Your task to perform on an android device: open chrome and create a bookmark for the current page Image 0: 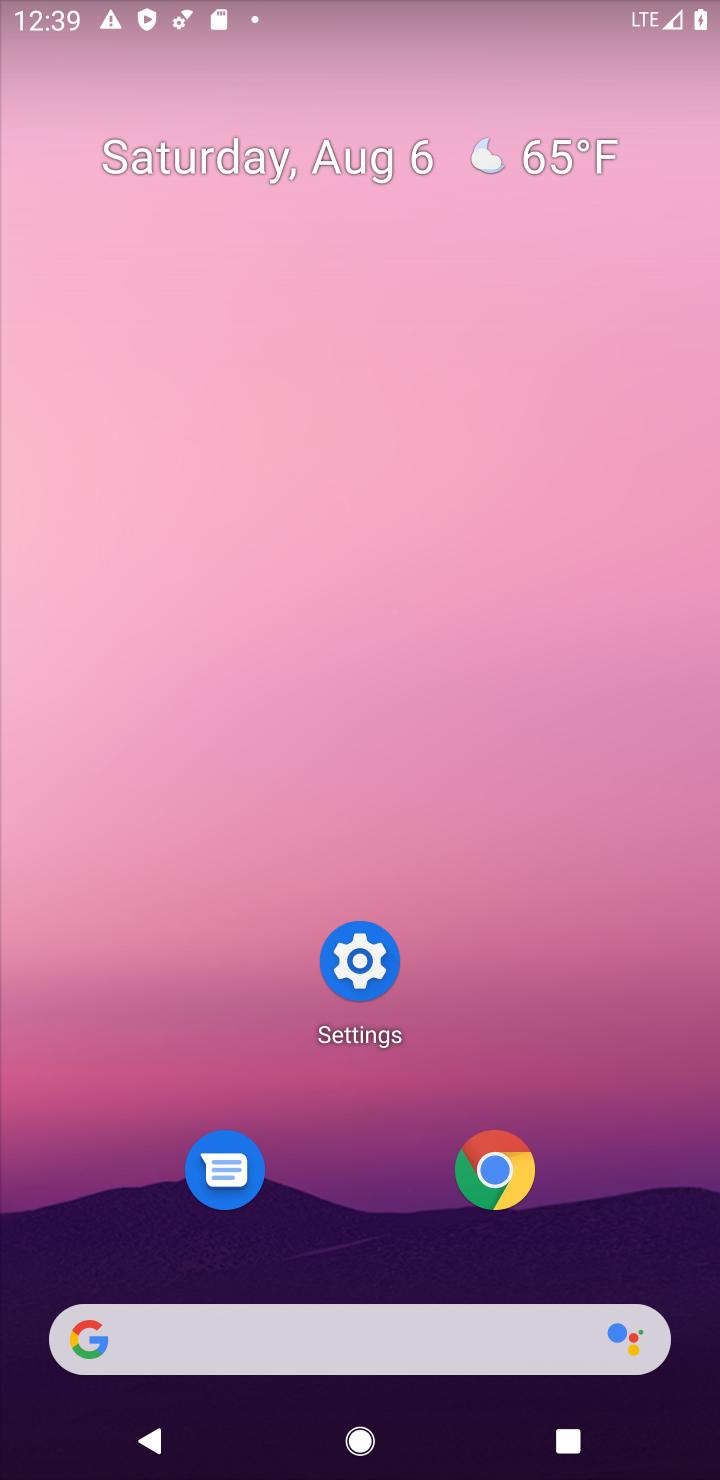
Step 0: click (498, 1195)
Your task to perform on an android device: open chrome and create a bookmark for the current page Image 1: 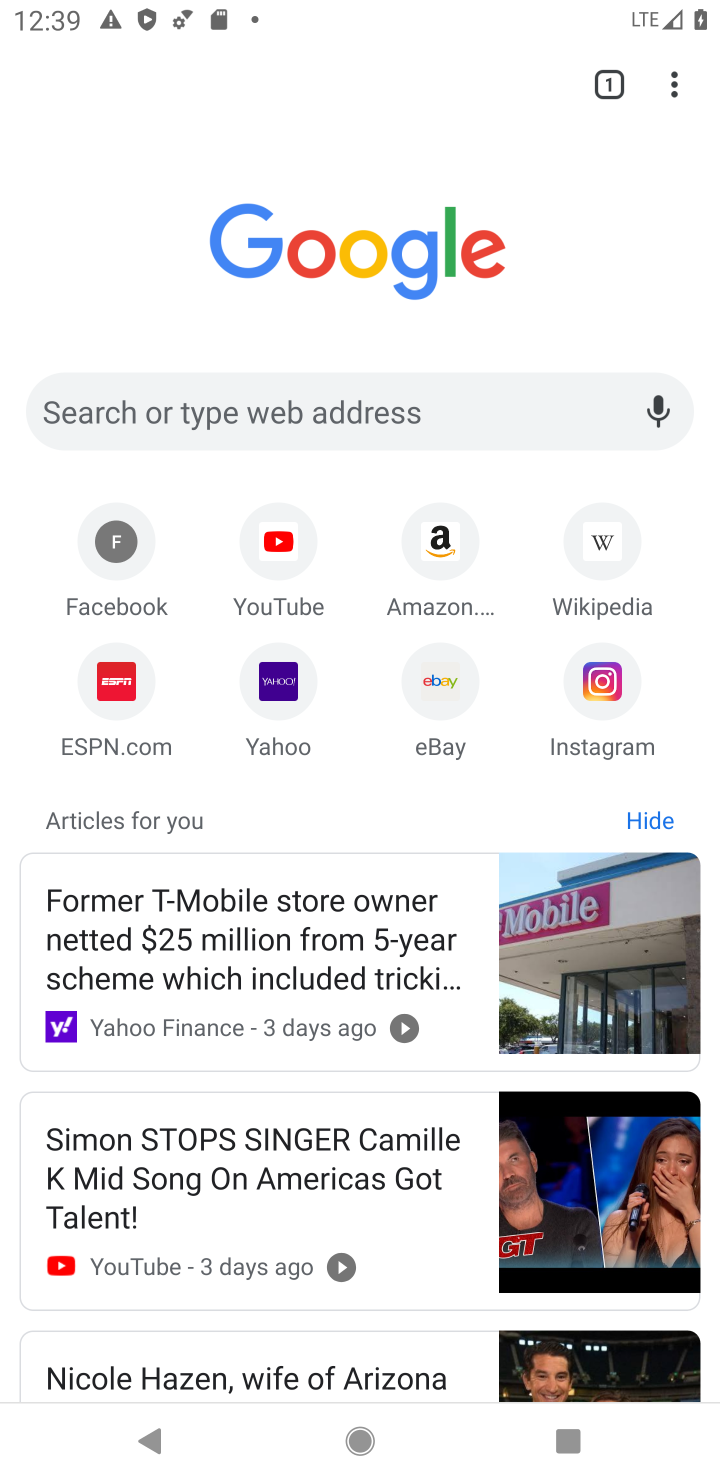
Step 1: click (675, 78)
Your task to perform on an android device: open chrome and create a bookmark for the current page Image 2: 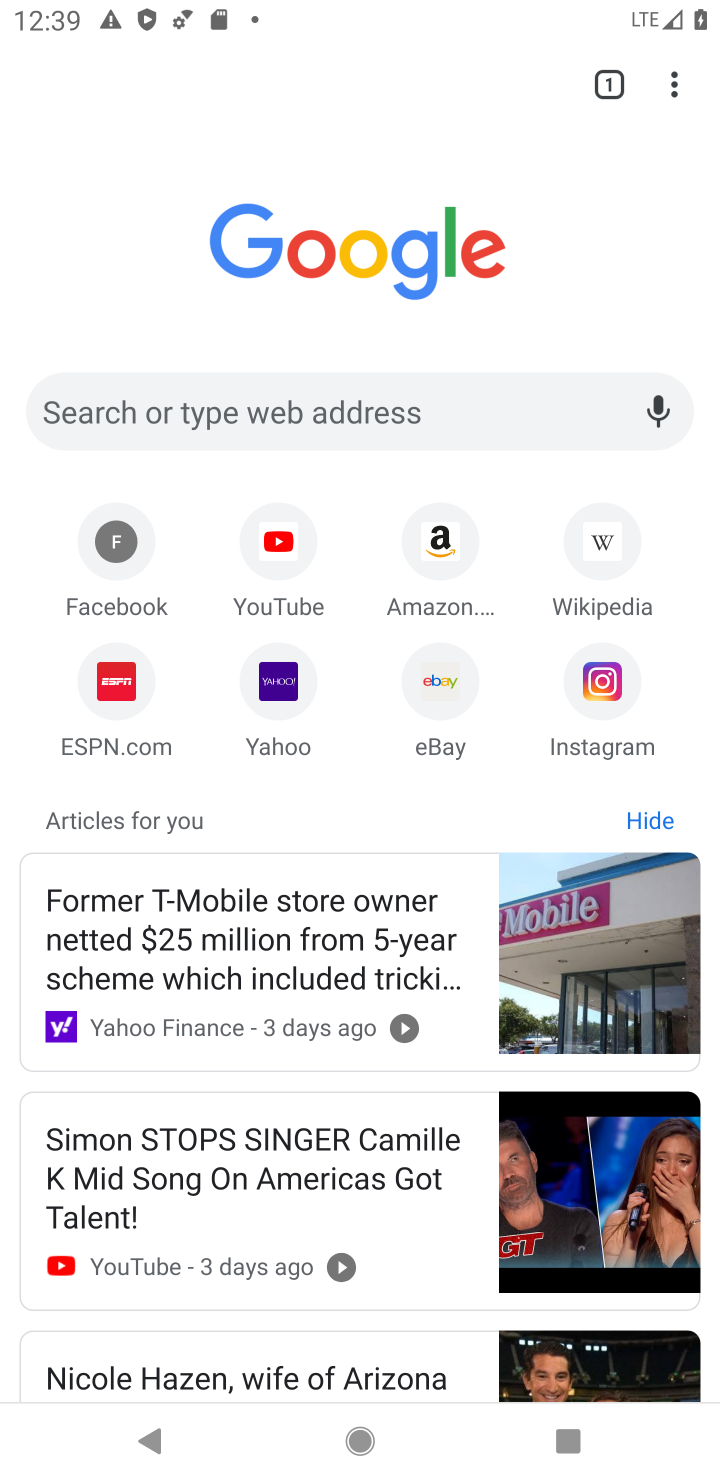
Step 2: click (186, 900)
Your task to perform on an android device: open chrome and create a bookmark for the current page Image 3: 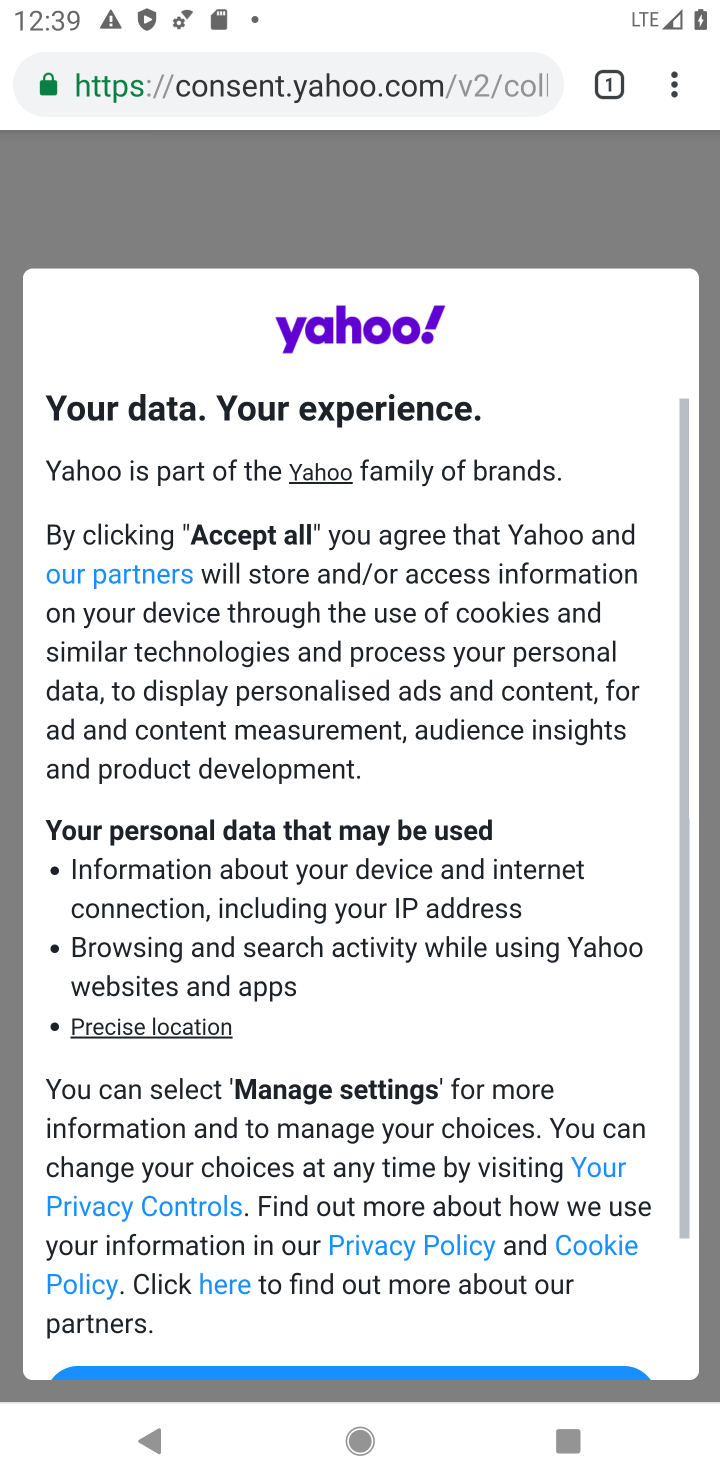
Step 3: click (681, 83)
Your task to perform on an android device: open chrome and create a bookmark for the current page Image 4: 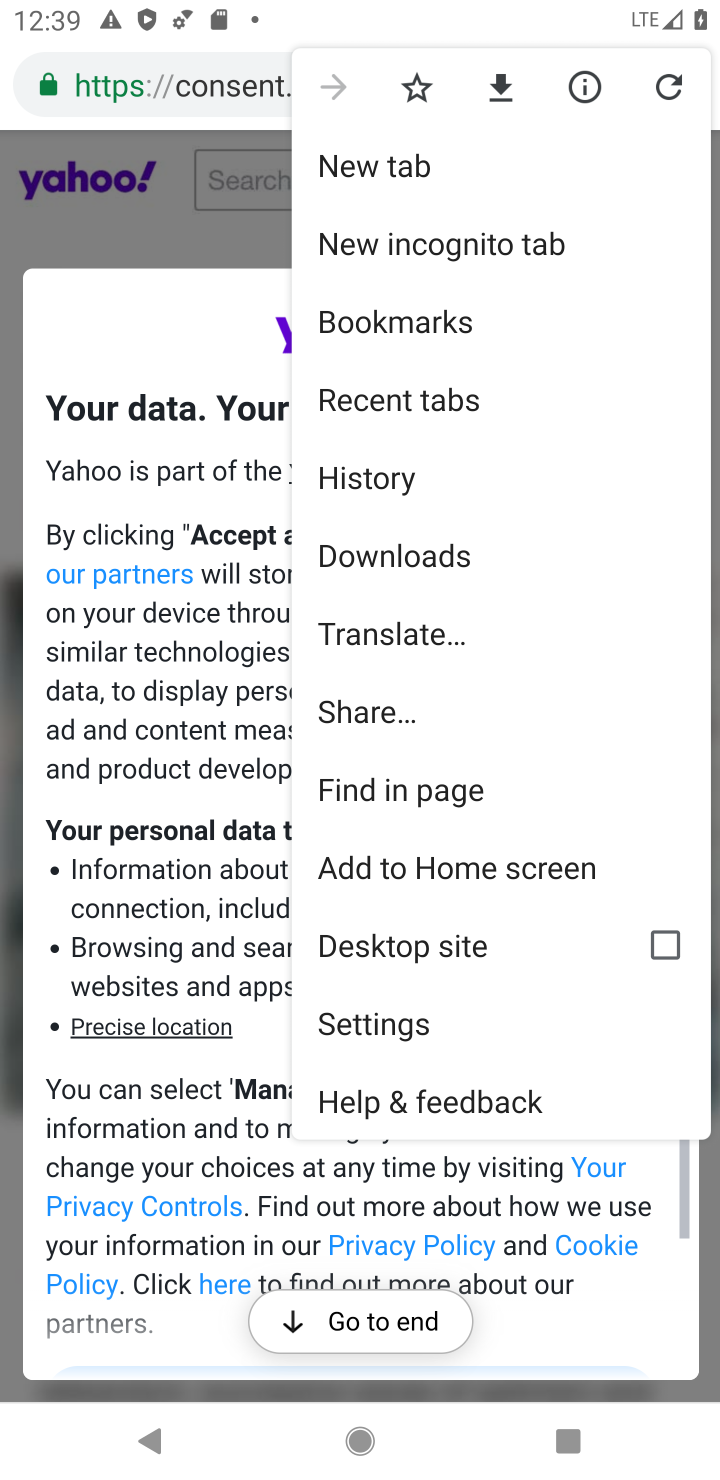
Step 4: click (416, 83)
Your task to perform on an android device: open chrome and create a bookmark for the current page Image 5: 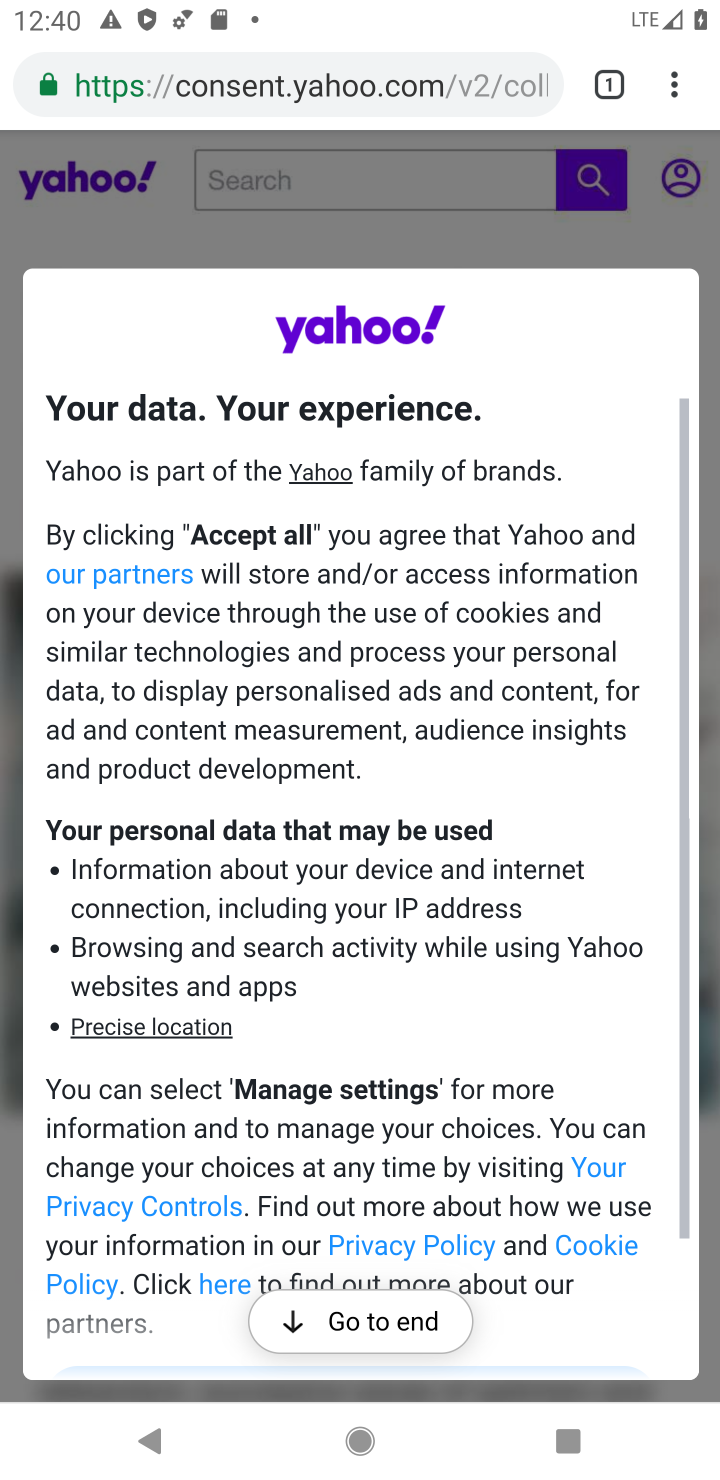
Step 5: click (676, 84)
Your task to perform on an android device: open chrome and create a bookmark for the current page Image 6: 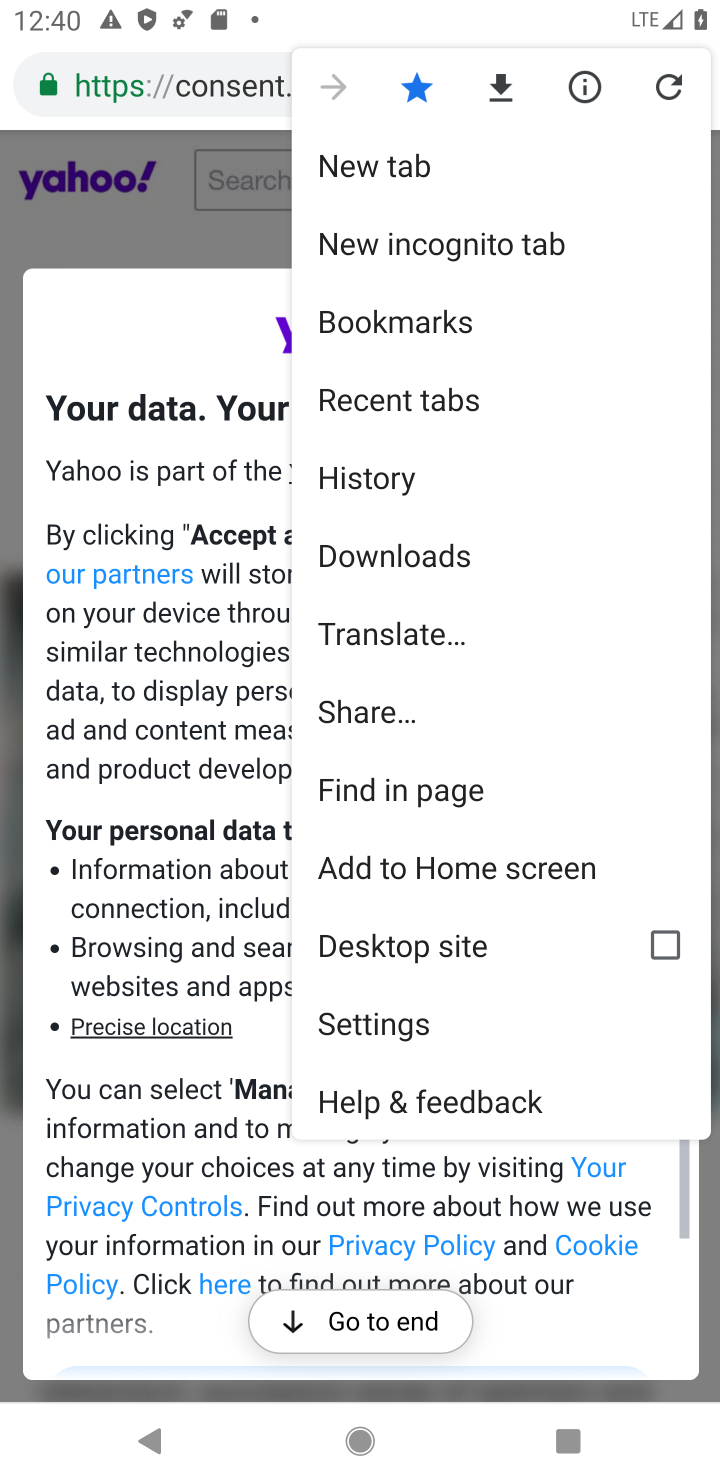
Step 6: click (401, 325)
Your task to perform on an android device: open chrome and create a bookmark for the current page Image 7: 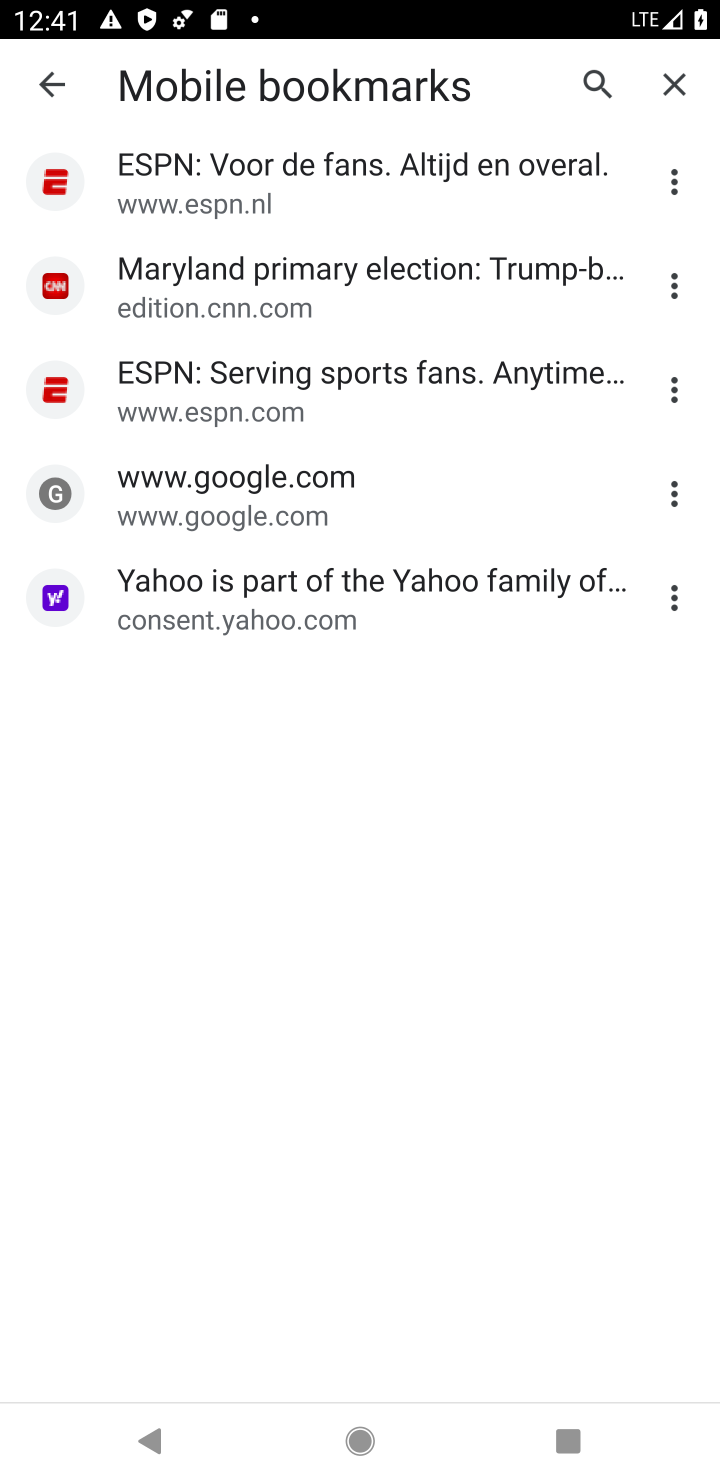
Step 7: task complete